Your task to perform on an android device: Open privacy settings Image 0: 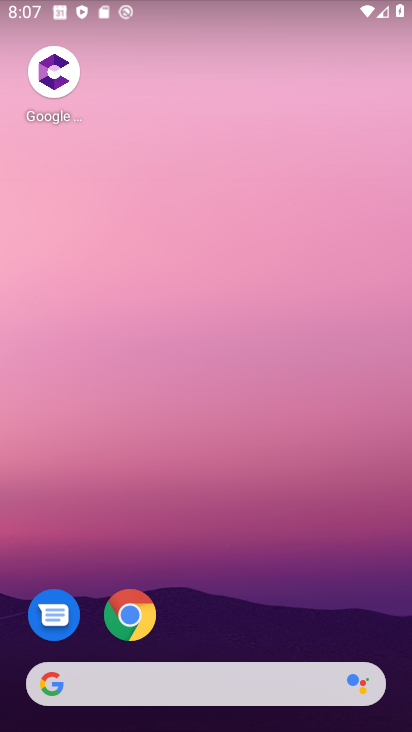
Step 0: drag from (218, 606) to (266, 74)
Your task to perform on an android device: Open privacy settings Image 1: 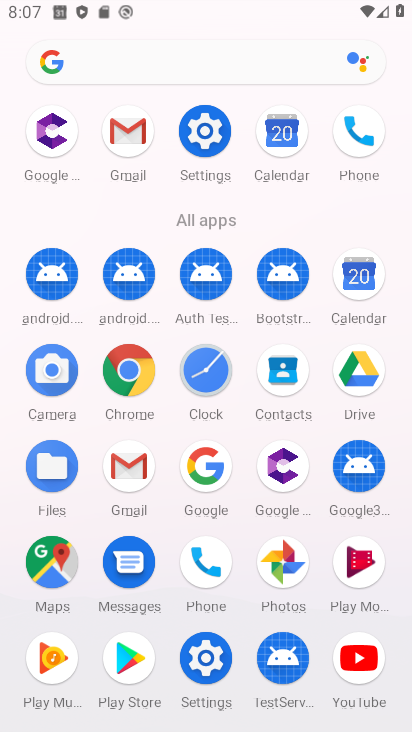
Step 1: click (205, 129)
Your task to perform on an android device: Open privacy settings Image 2: 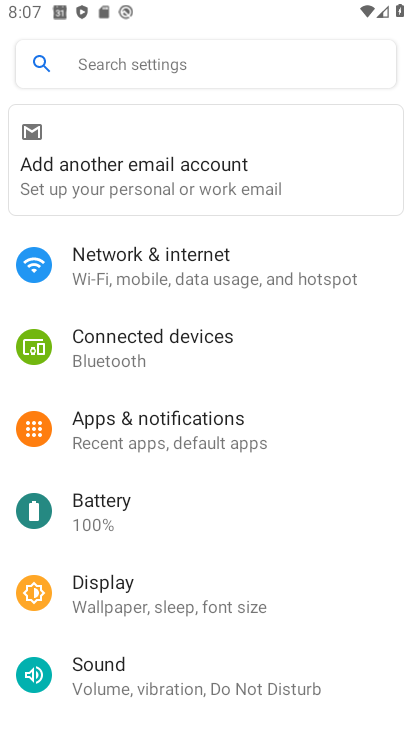
Step 2: drag from (215, 479) to (257, 346)
Your task to perform on an android device: Open privacy settings Image 3: 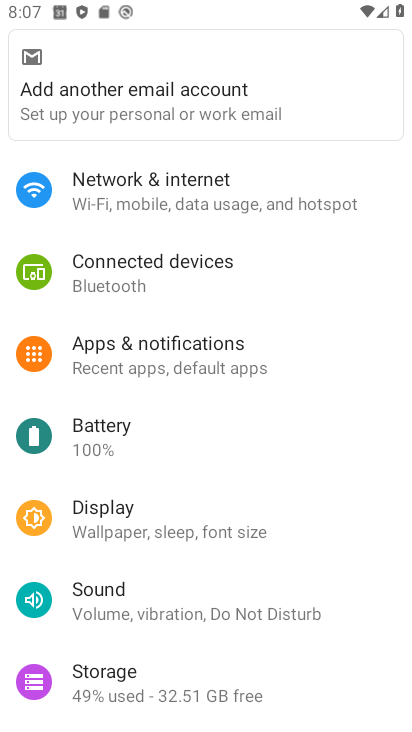
Step 3: drag from (200, 481) to (232, 401)
Your task to perform on an android device: Open privacy settings Image 4: 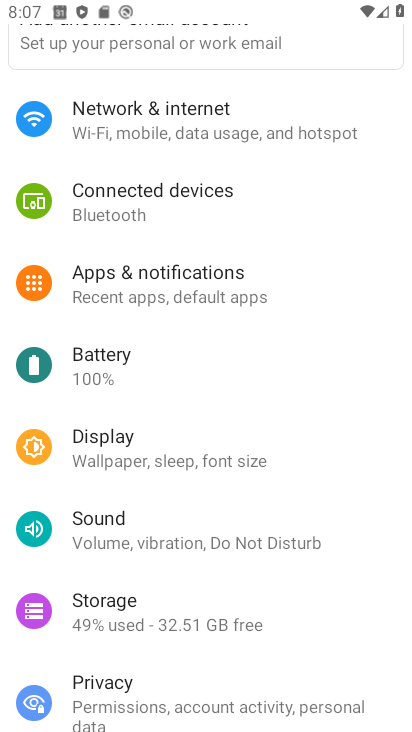
Step 4: drag from (182, 506) to (215, 382)
Your task to perform on an android device: Open privacy settings Image 5: 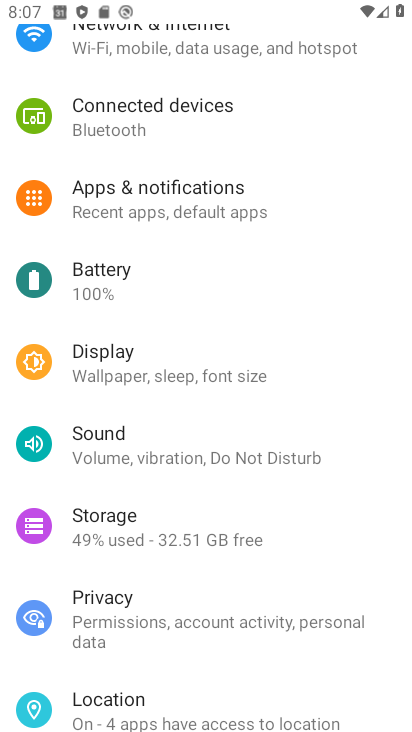
Step 5: click (118, 595)
Your task to perform on an android device: Open privacy settings Image 6: 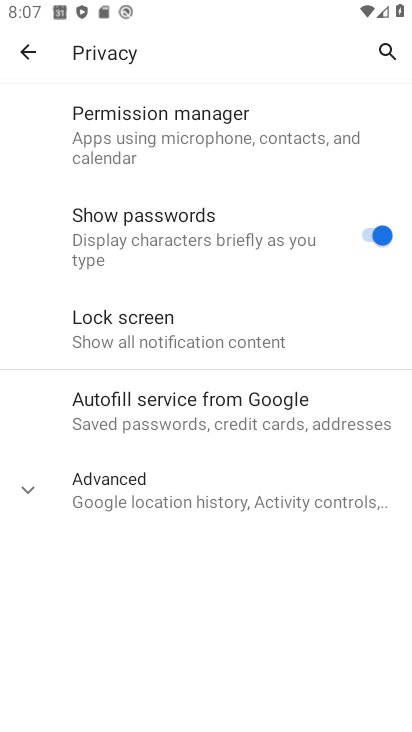
Step 6: task complete